Your task to perform on an android device: Search for sushi restaurants on Maps Image 0: 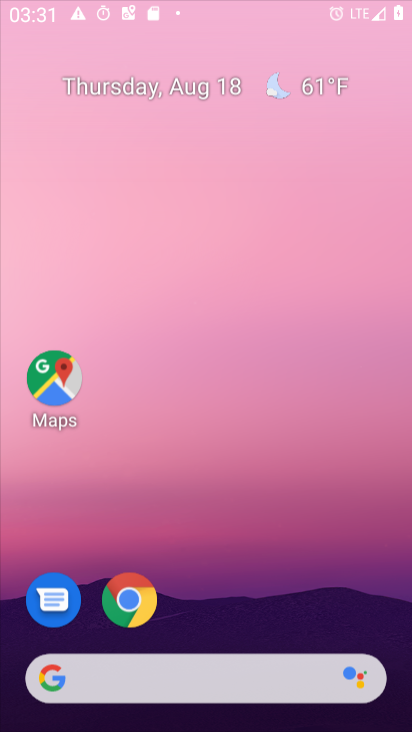
Step 0: press home button
Your task to perform on an android device: Search for sushi restaurants on Maps Image 1: 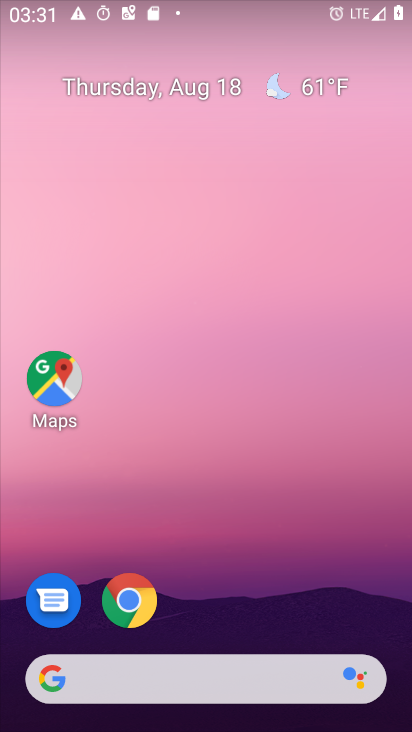
Step 1: click (63, 372)
Your task to perform on an android device: Search for sushi restaurants on Maps Image 2: 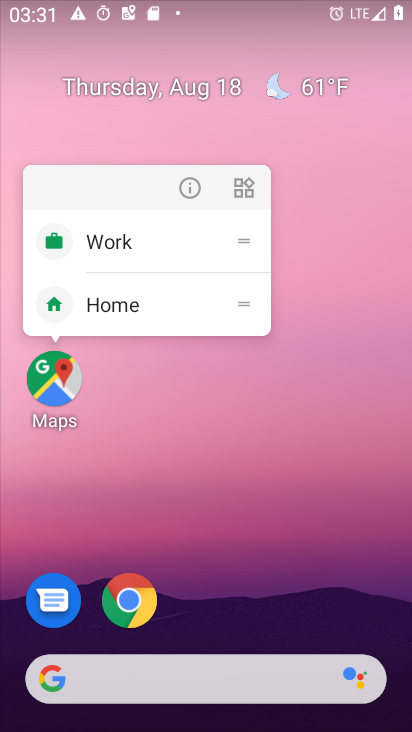
Step 2: click (63, 372)
Your task to perform on an android device: Search for sushi restaurants on Maps Image 3: 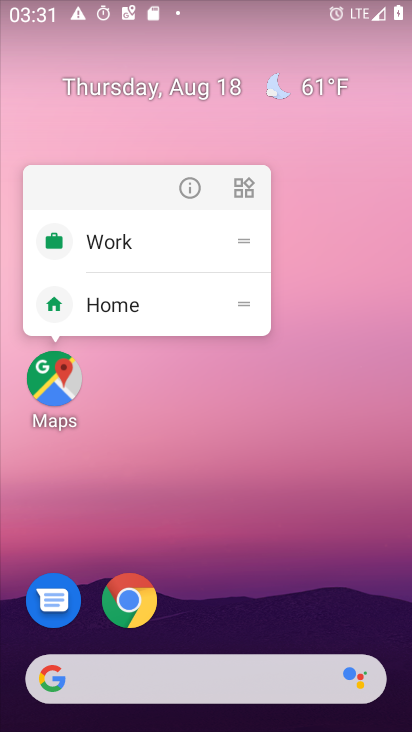
Step 3: click (63, 372)
Your task to perform on an android device: Search for sushi restaurants on Maps Image 4: 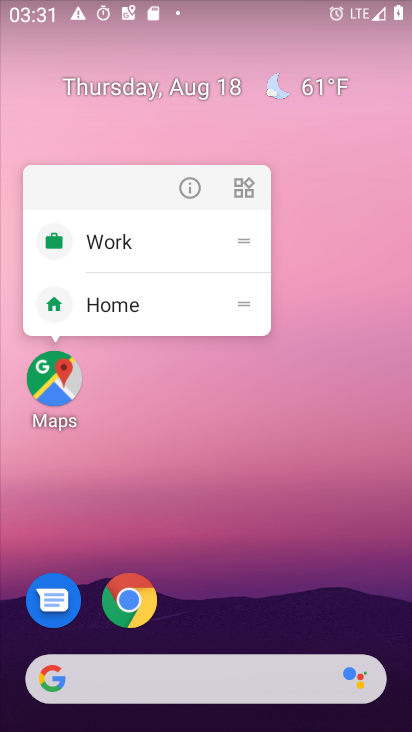
Step 4: click (63, 372)
Your task to perform on an android device: Search for sushi restaurants on Maps Image 5: 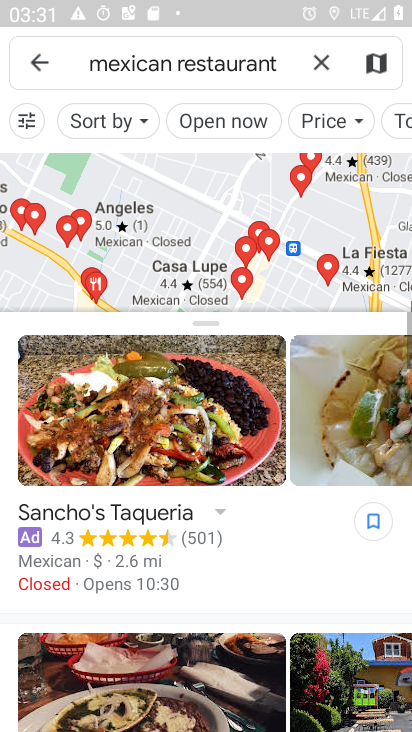
Step 5: click (326, 68)
Your task to perform on an android device: Search for sushi restaurants on Maps Image 6: 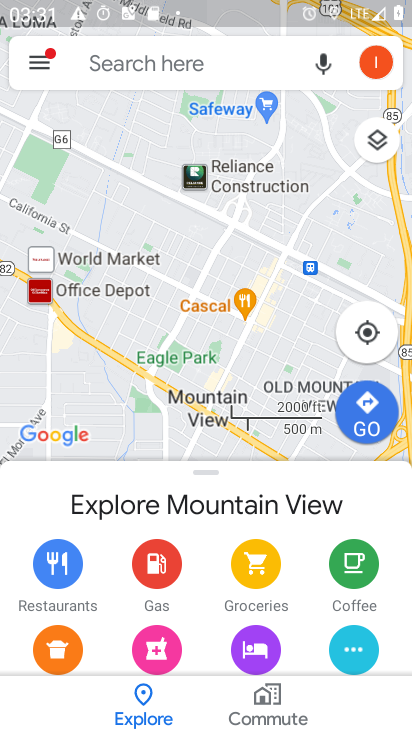
Step 6: click (182, 69)
Your task to perform on an android device: Search for sushi restaurants on Maps Image 7: 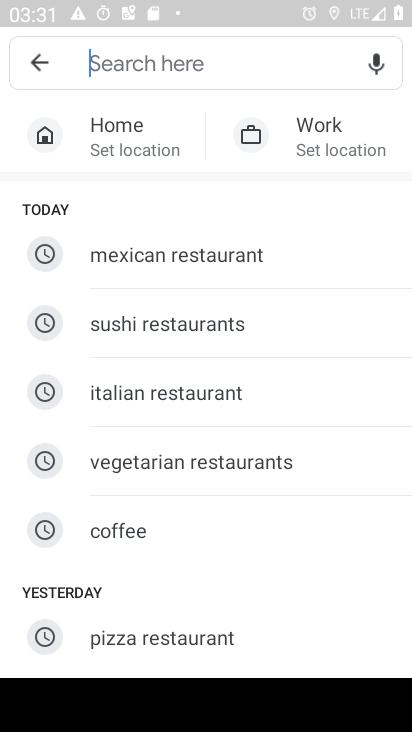
Step 7: click (190, 328)
Your task to perform on an android device: Search for sushi restaurants on Maps Image 8: 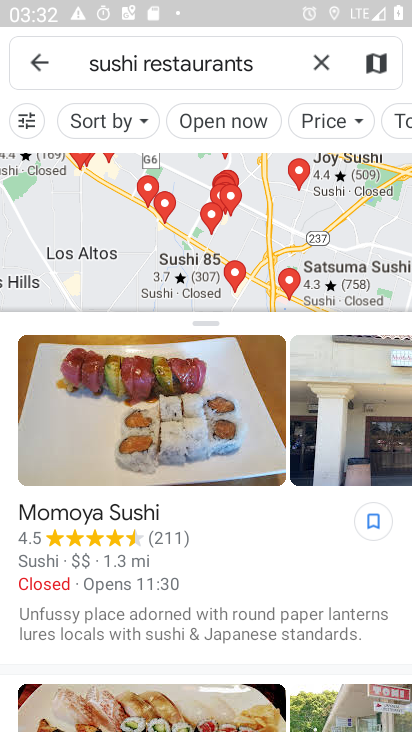
Step 8: task complete